Your task to perform on an android device: Go to sound settings Image 0: 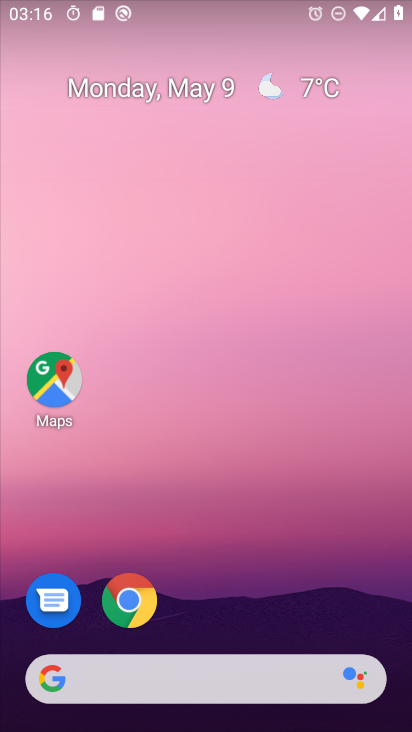
Step 0: drag from (208, 681) to (221, 217)
Your task to perform on an android device: Go to sound settings Image 1: 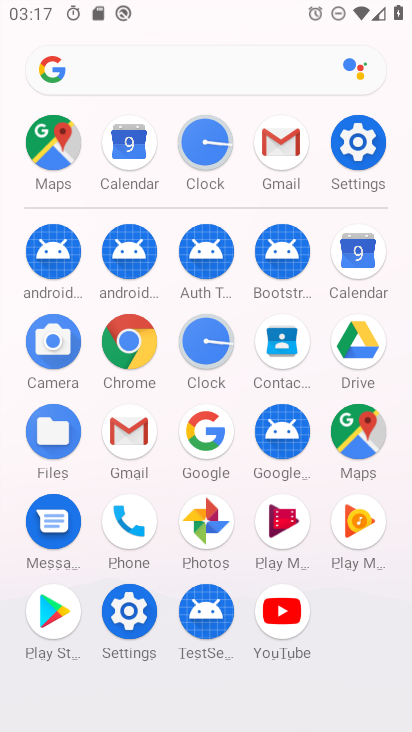
Step 1: click (345, 151)
Your task to perform on an android device: Go to sound settings Image 2: 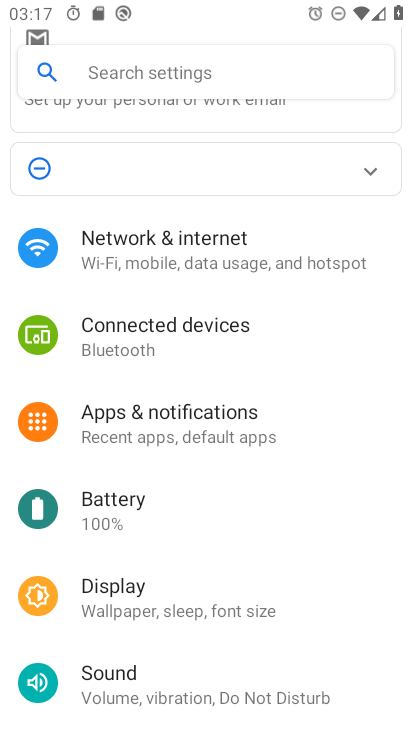
Step 2: click (161, 678)
Your task to perform on an android device: Go to sound settings Image 3: 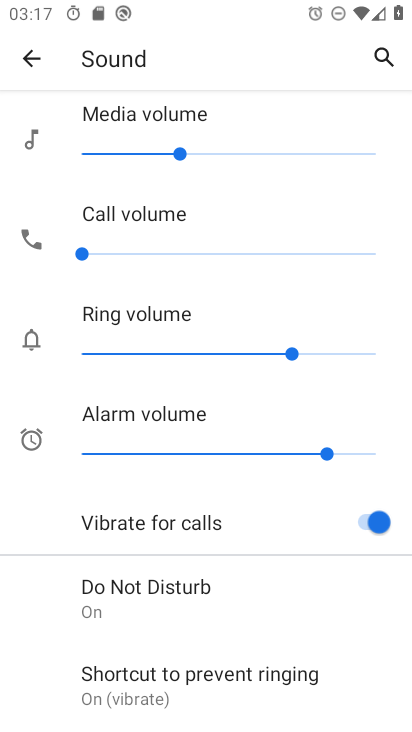
Step 3: task complete